Your task to perform on an android device: Search for Italian restaurants on Maps Image 0: 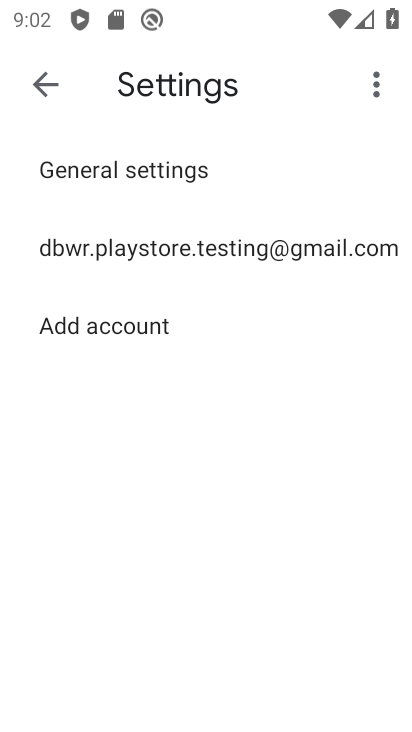
Step 0: press home button
Your task to perform on an android device: Search for Italian restaurants on Maps Image 1: 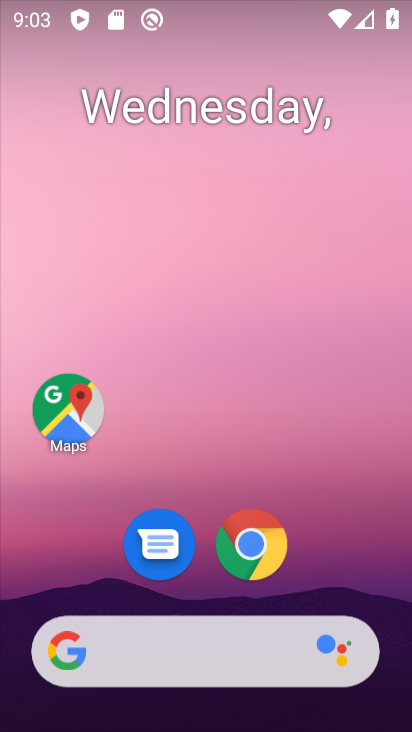
Step 1: click (63, 425)
Your task to perform on an android device: Search for Italian restaurants on Maps Image 2: 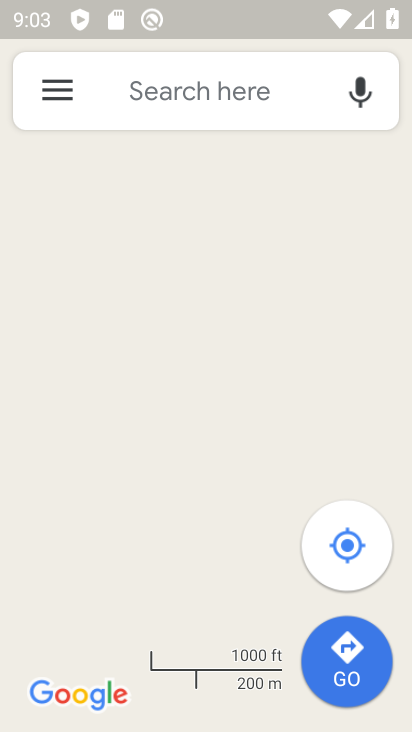
Step 2: click (232, 83)
Your task to perform on an android device: Search for Italian restaurants on Maps Image 3: 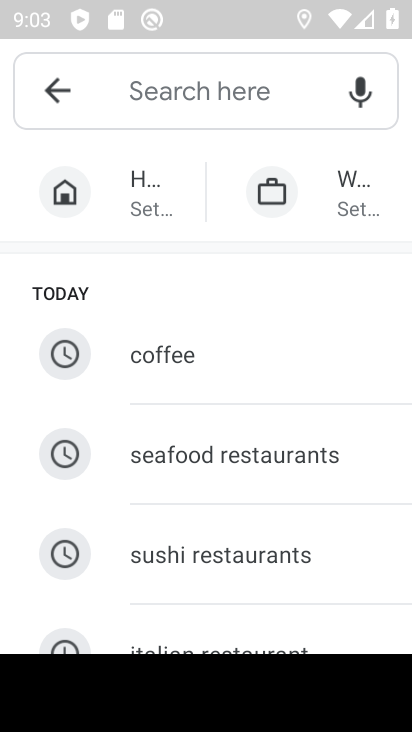
Step 3: type "itali"
Your task to perform on an android device: Search for Italian restaurants on Maps Image 4: 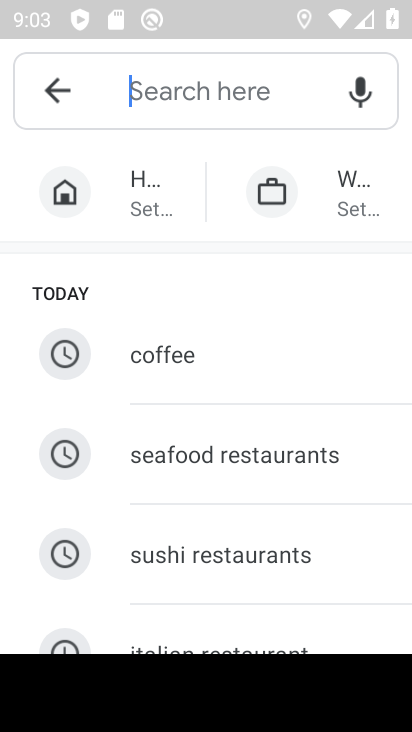
Step 4: click (210, 645)
Your task to perform on an android device: Search for Italian restaurants on Maps Image 5: 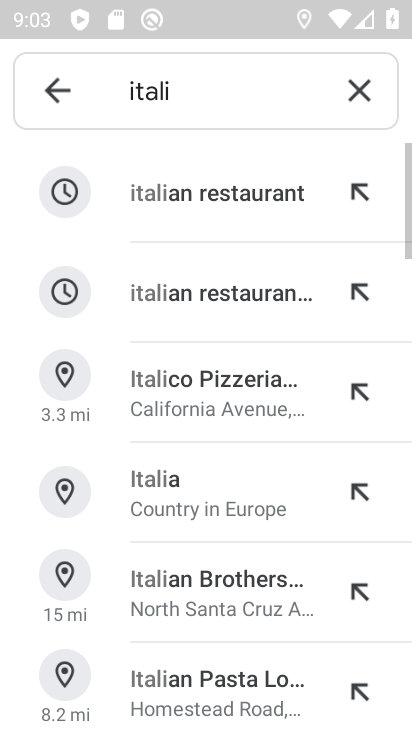
Step 5: click (223, 176)
Your task to perform on an android device: Search for Italian restaurants on Maps Image 6: 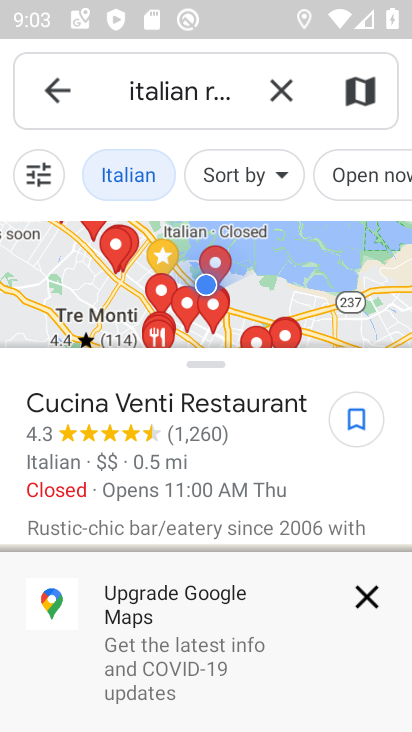
Step 6: task complete